Your task to perform on an android device: turn off priority inbox in the gmail app Image 0: 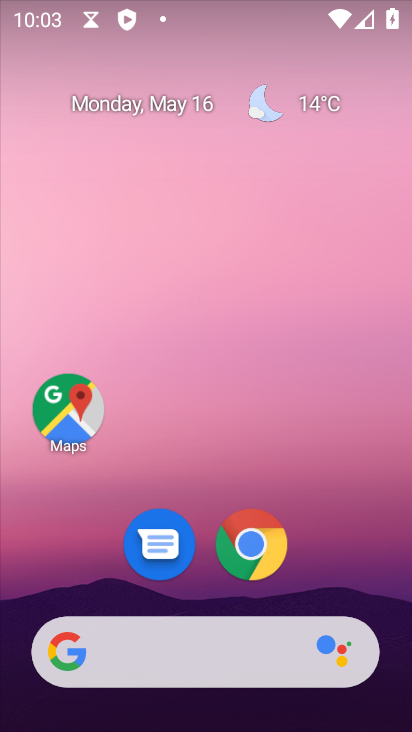
Step 0: drag from (318, 477) to (363, 144)
Your task to perform on an android device: turn off priority inbox in the gmail app Image 1: 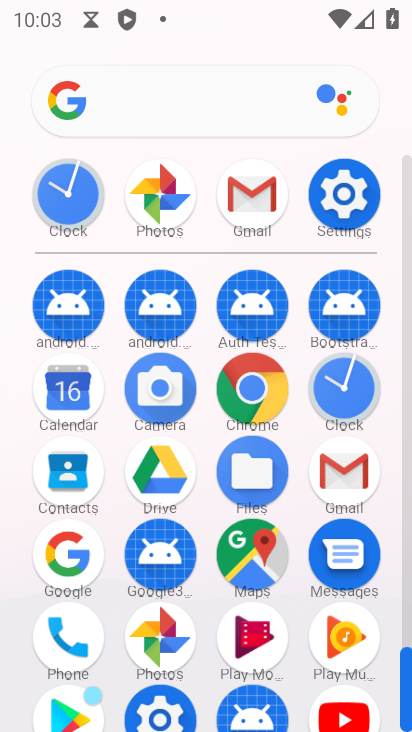
Step 1: click (350, 480)
Your task to perform on an android device: turn off priority inbox in the gmail app Image 2: 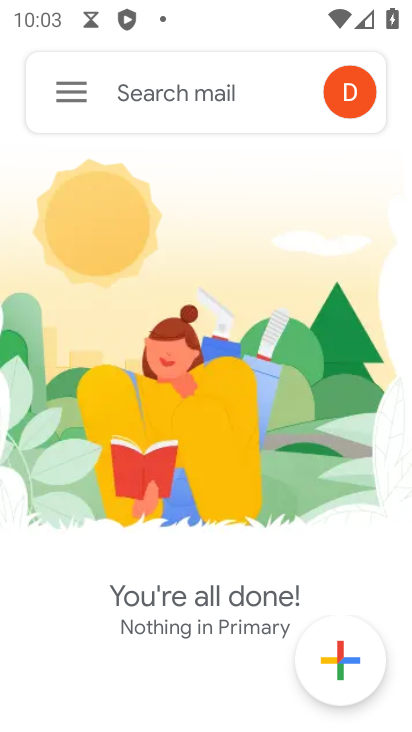
Step 2: click (63, 95)
Your task to perform on an android device: turn off priority inbox in the gmail app Image 3: 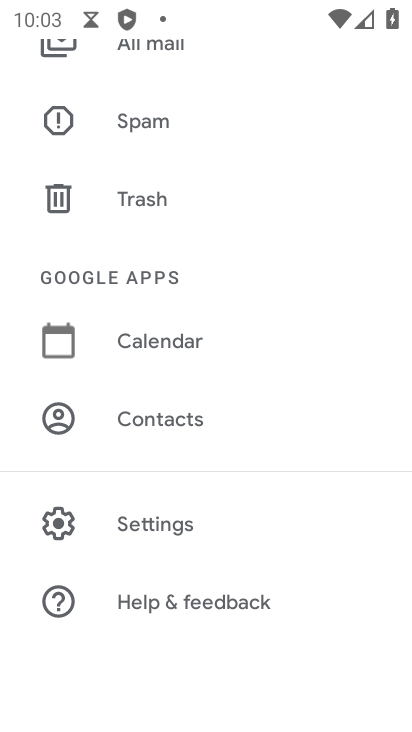
Step 3: drag from (225, 190) to (243, 601)
Your task to perform on an android device: turn off priority inbox in the gmail app Image 4: 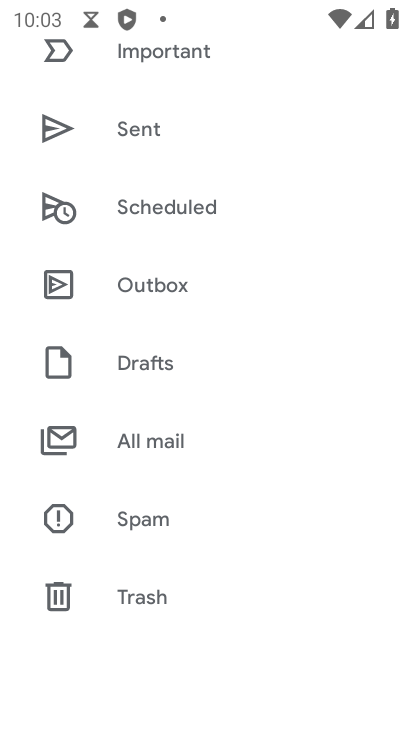
Step 4: drag from (277, 192) to (228, 622)
Your task to perform on an android device: turn off priority inbox in the gmail app Image 5: 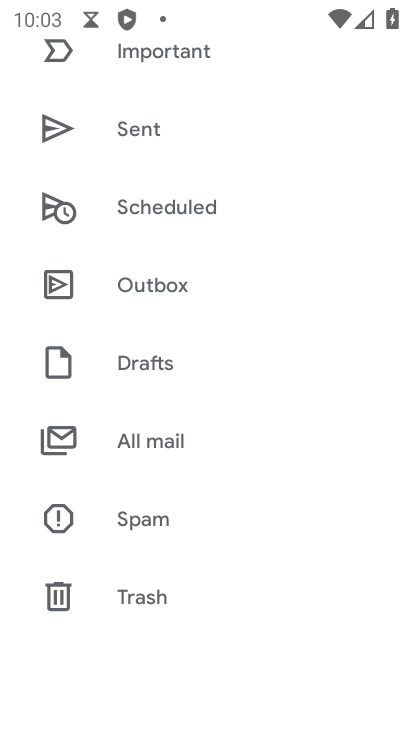
Step 5: drag from (264, 174) to (233, 614)
Your task to perform on an android device: turn off priority inbox in the gmail app Image 6: 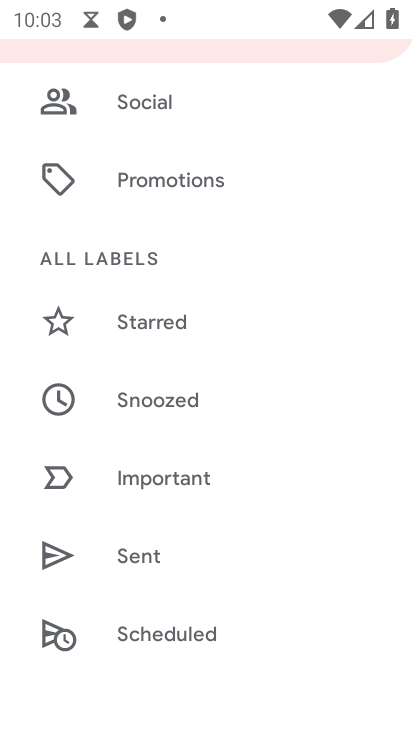
Step 6: drag from (193, 229) to (226, 134)
Your task to perform on an android device: turn off priority inbox in the gmail app Image 7: 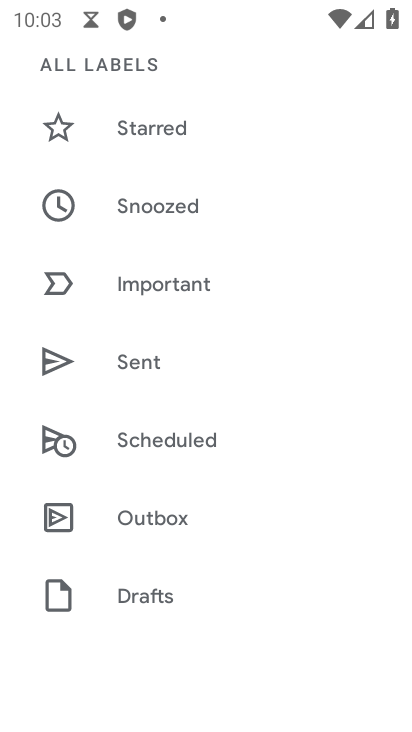
Step 7: drag from (218, 590) to (272, 218)
Your task to perform on an android device: turn off priority inbox in the gmail app Image 8: 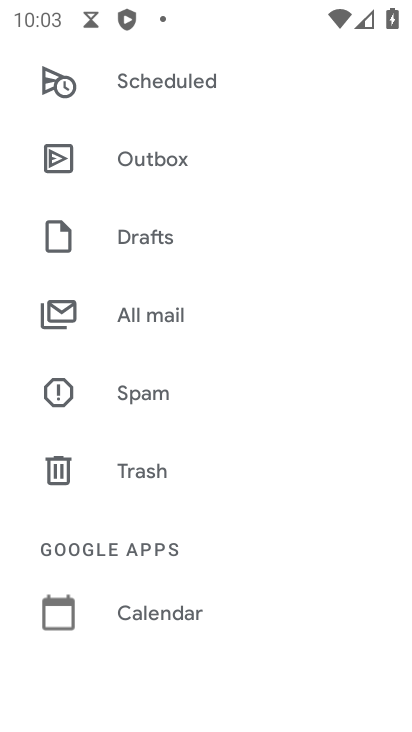
Step 8: drag from (291, 496) to (319, 149)
Your task to perform on an android device: turn off priority inbox in the gmail app Image 9: 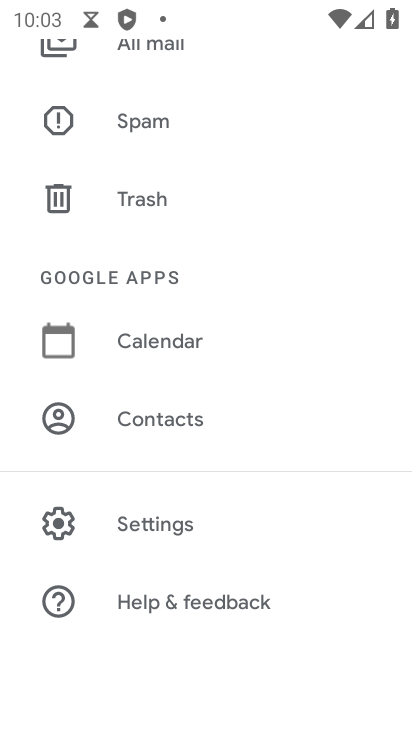
Step 9: click (154, 532)
Your task to perform on an android device: turn off priority inbox in the gmail app Image 10: 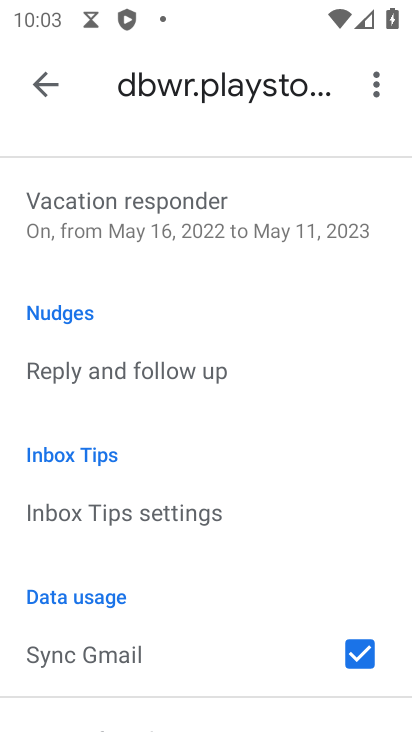
Step 10: drag from (222, 647) to (210, 731)
Your task to perform on an android device: turn off priority inbox in the gmail app Image 11: 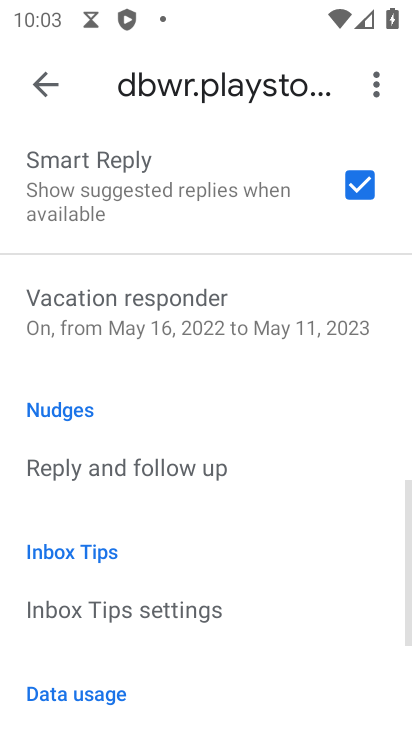
Step 11: drag from (195, 459) to (192, 689)
Your task to perform on an android device: turn off priority inbox in the gmail app Image 12: 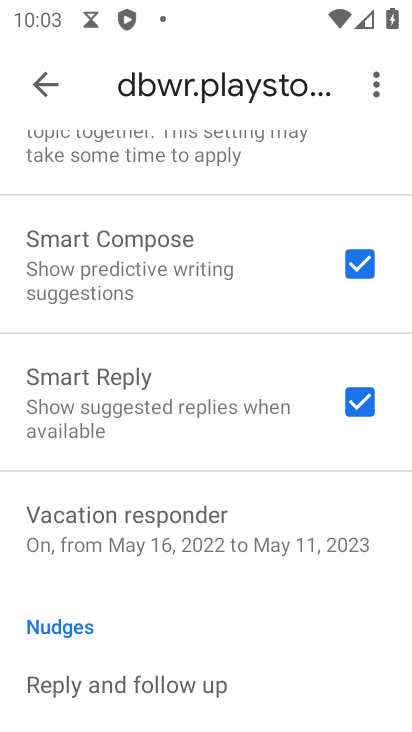
Step 12: drag from (210, 360) to (194, 688)
Your task to perform on an android device: turn off priority inbox in the gmail app Image 13: 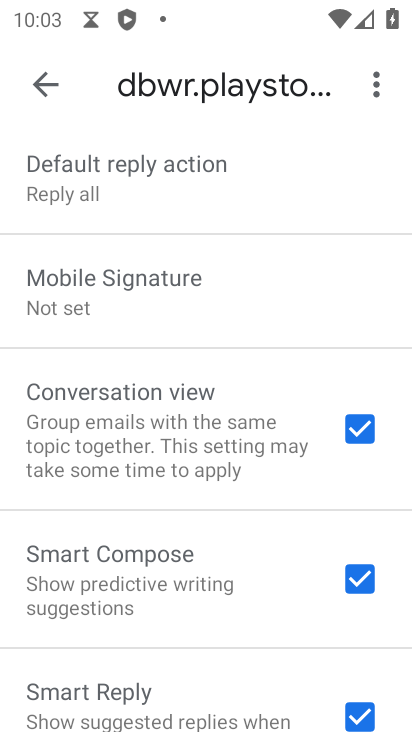
Step 13: drag from (206, 308) to (177, 673)
Your task to perform on an android device: turn off priority inbox in the gmail app Image 14: 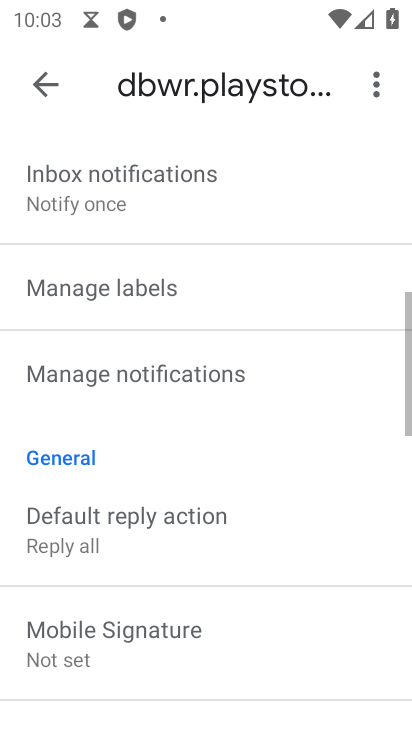
Step 14: drag from (195, 377) to (191, 603)
Your task to perform on an android device: turn off priority inbox in the gmail app Image 15: 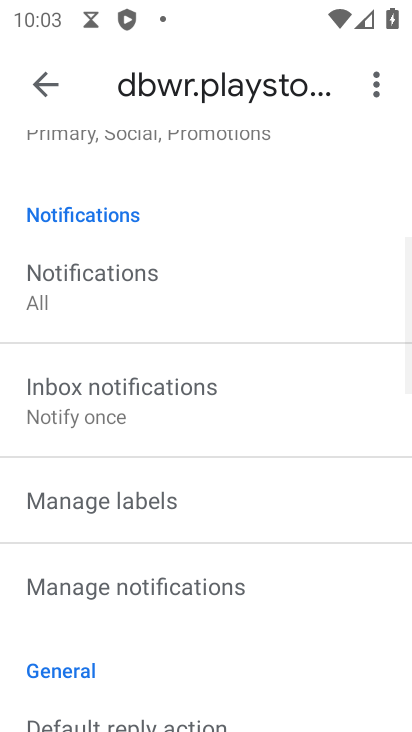
Step 15: drag from (184, 316) to (166, 548)
Your task to perform on an android device: turn off priority inbox in the gmail app Image 16: 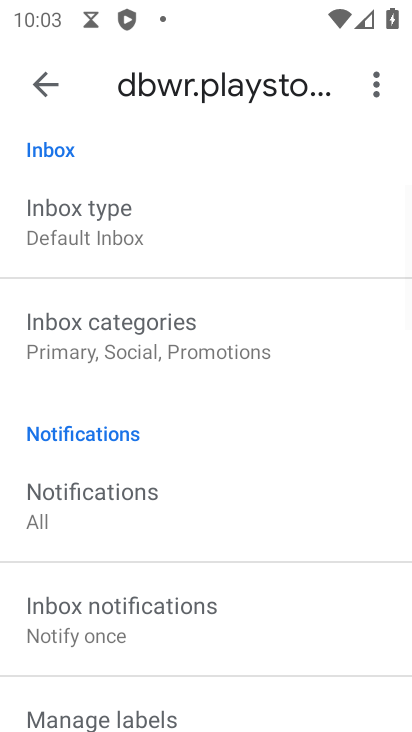
Step 16: click (127, 259)
Your task to perform on an android device: turn off priority inbox in the gmail app Image 17: 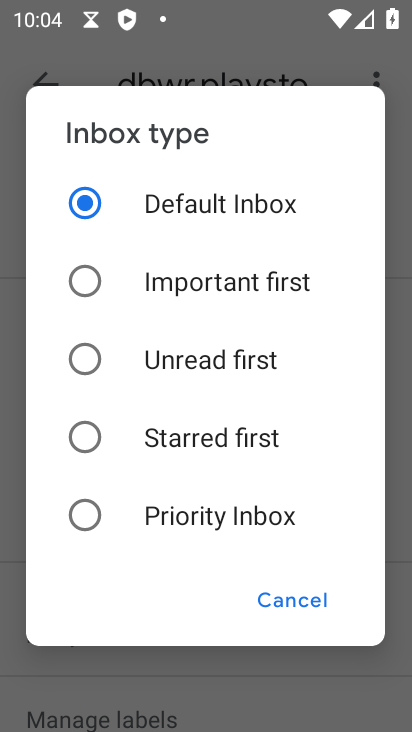
Step 17: click (206, 523)
Your task to perform on an android device: turn off priority inbox in the gmail app Image 18: 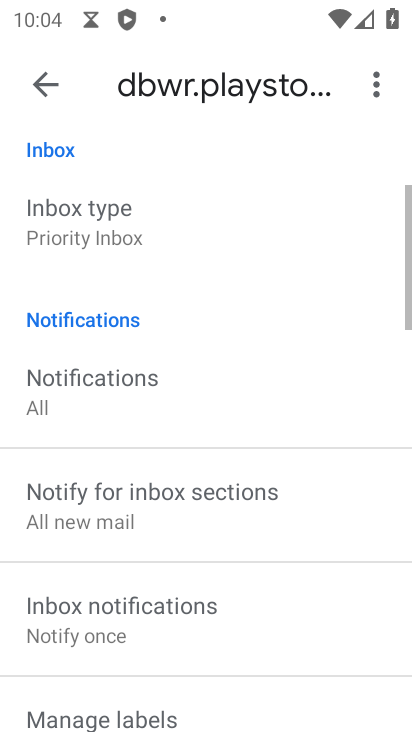
Step 18: task complete